Your task to perform on an android device: star an email in the gmail app Image 0: 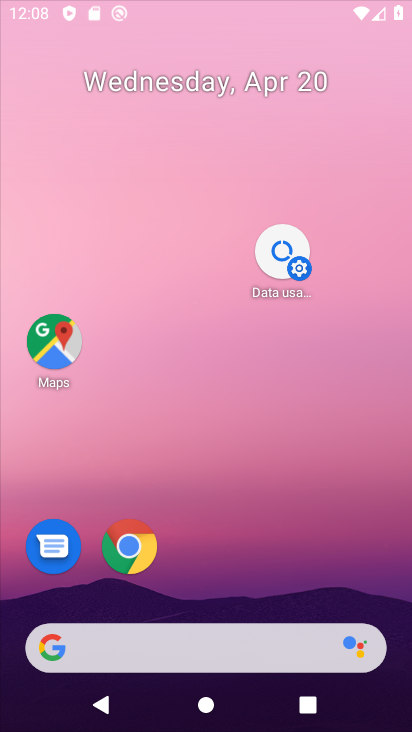
Step 0: drag from (318, 250) to (331, 170)
Your task to perform on an android device: star an email in the gmail app Image 1: 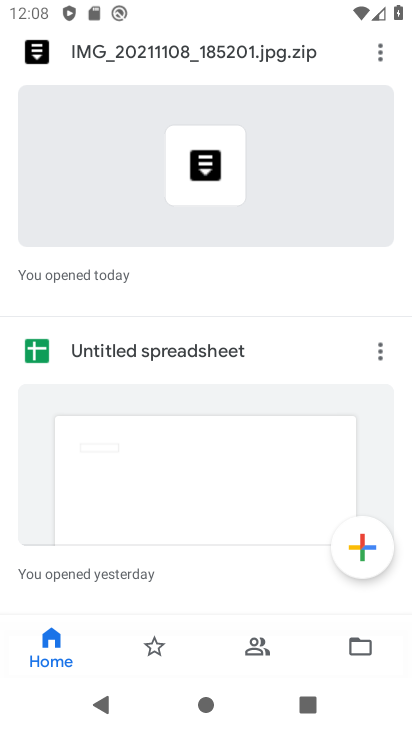
Step 1: press home button
Your task to perform on an android device: star an email in the gmail app Image 2: 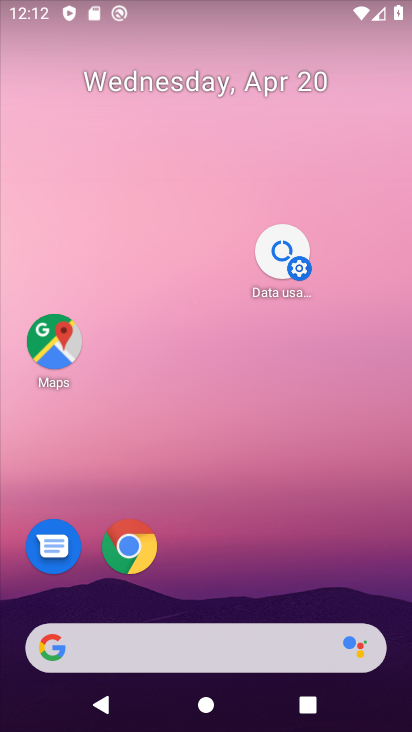
Step 2: drag from (267, 685) to (304, 121)
Your task to perform on an android device: star an email in the gmail app Image 3: 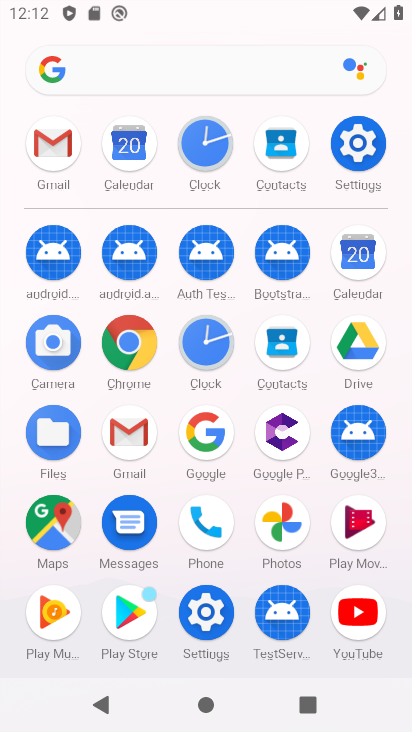
Step 3: click (48, 153)
Your task to perform on an android device: star an email in the gmail app Image 4: 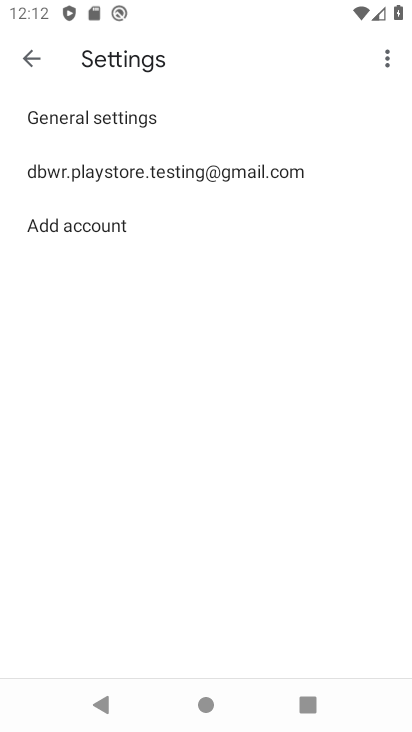
Step 4: click (132, 177)
Your task to perform on an android device: star an email in the gmail app Image 5: 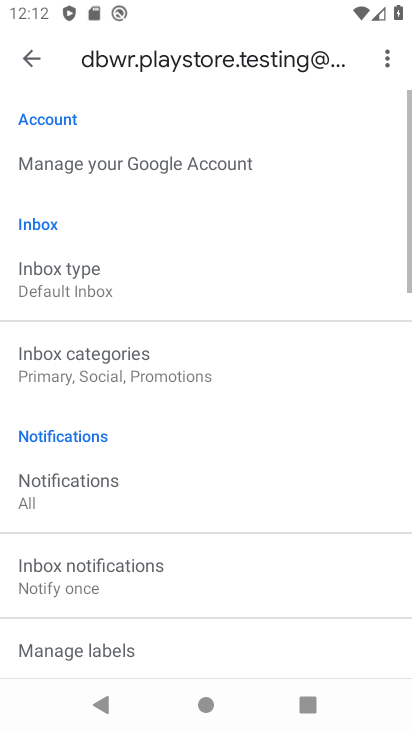
Step 5: click (36, 63)
Your task to perform on an android device: star an email in the gmail app Image 6: 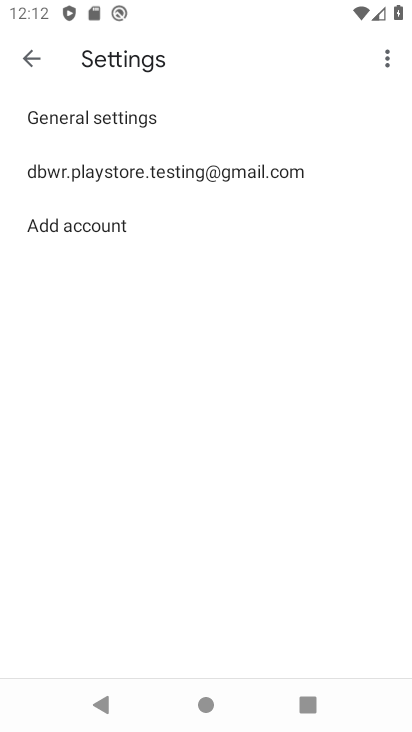
Step 6: press back button
Your task to perform on an android device: star an email in the gmail app Image 7: 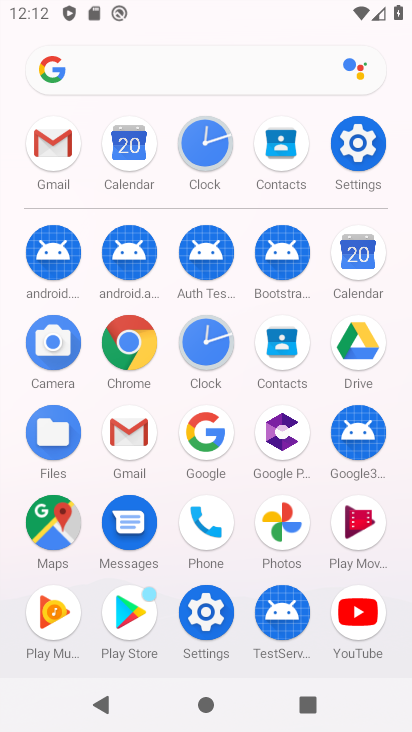
Step 7: click (68, 152)
Your task to perform on an android device: star an email in the gmail app Image 8: 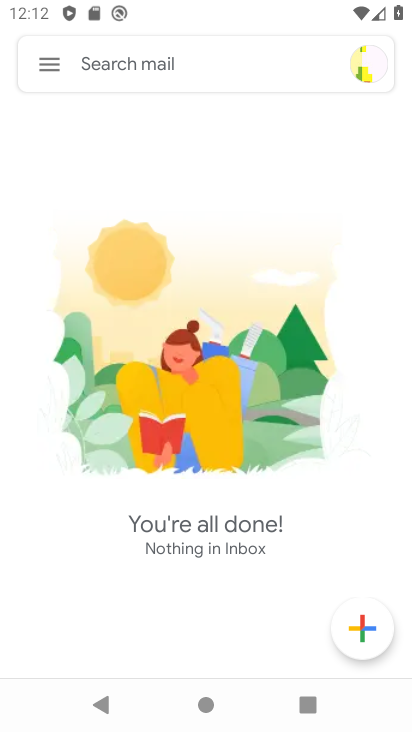
Step 8: task complete